Your task to perform on an android device: check storage Image 0: 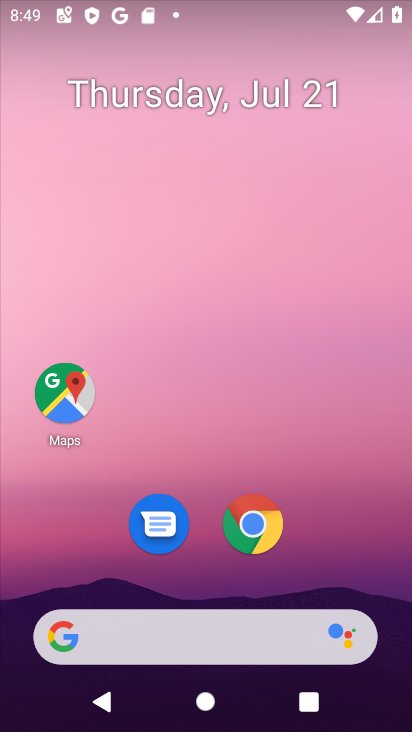
Step 0: drag from (213, 637) to (386, 69)
Your task to perform on an android device: check storage Image 1: 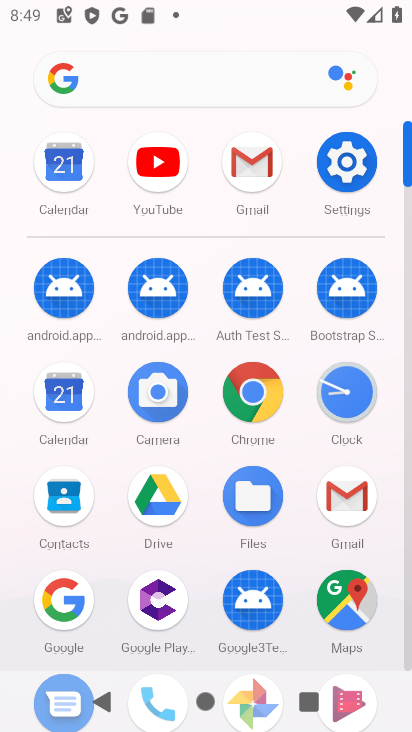
Step 1: click (355, 164)
Your task to perform on an android device: check storage Image 2: 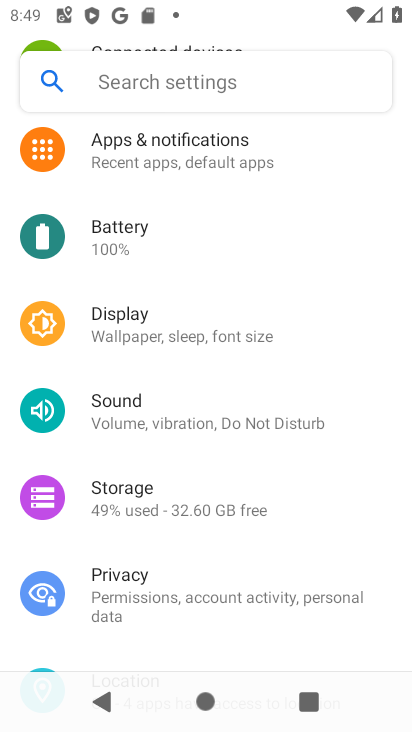
Step 2: click (145, 499)
Your task to perform on an android device: check storage Image 3: 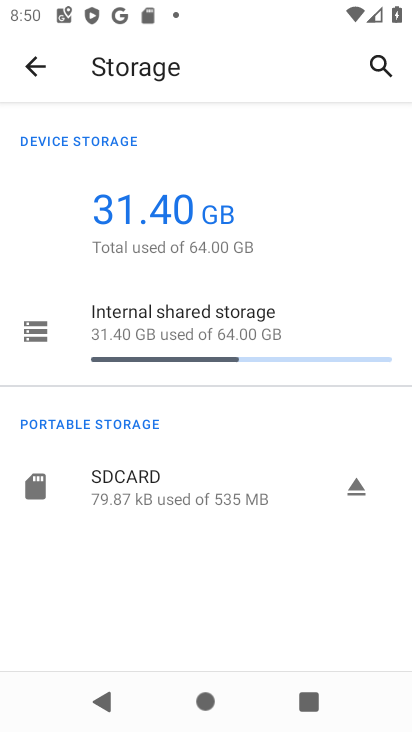
Step 3: task complete